Your task to perform on an android device: remove spam from my inbox in the gmail app Image 0: 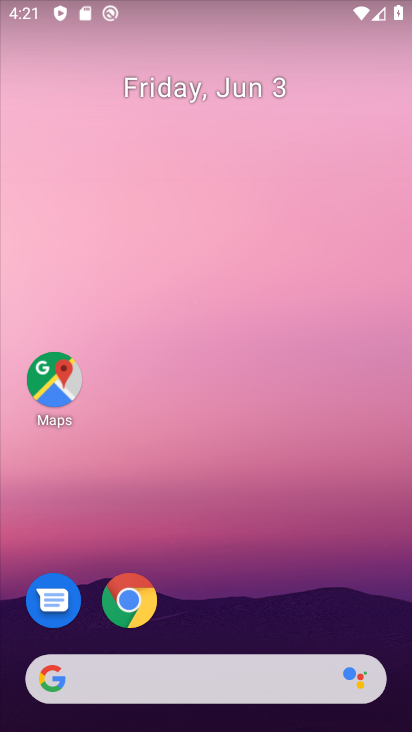
Step 0: drag from (193, 624) to (398, 95)
Your task to perform on an android device: remove spam from my inbox in the gmail app Image 1: 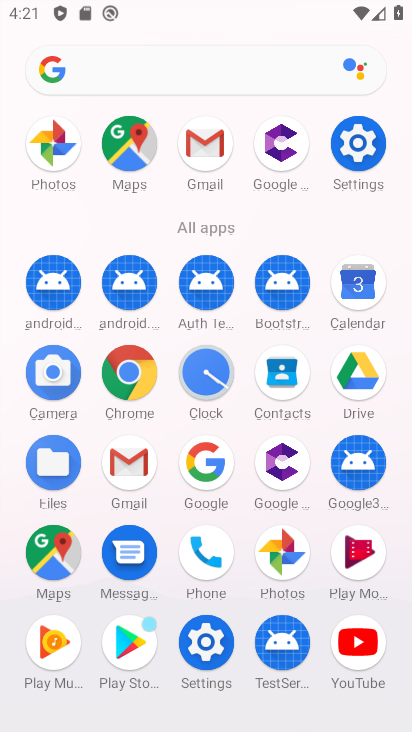
Step 1: click (137, 476)
Your task to perform on an android device: remove spam from my inbox in the gmail app Image 2: 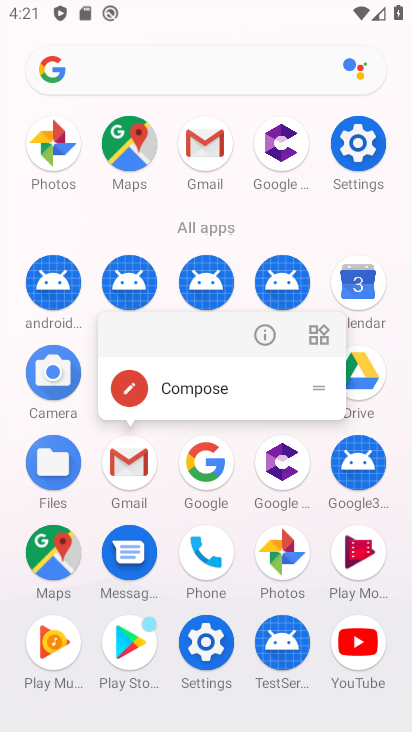
Step 2: click (137, 476)
Your task to perform on an android device: remove spam from my inbox in the gmail app Image 3: 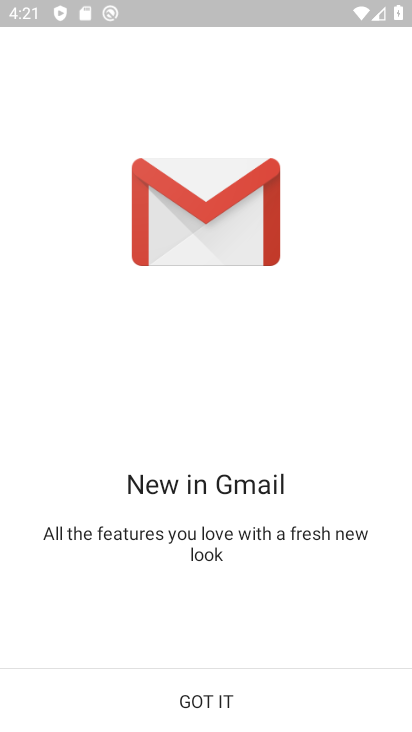
Step 3: click (193, 690)
Your task to perform on an android device: remove spam from my inbox in the gmail app Image 4: 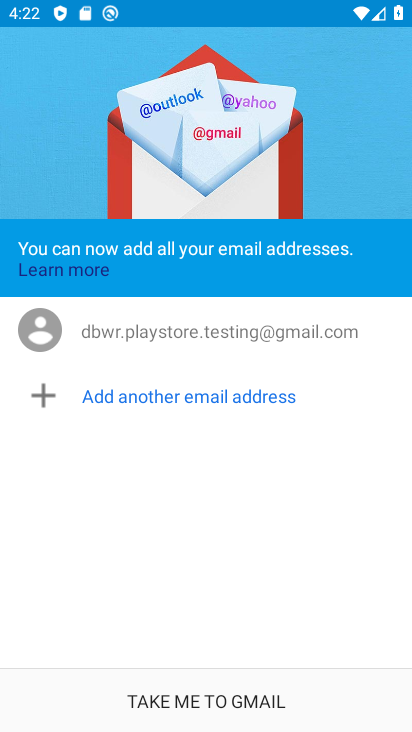
Step 4: click (193, 698)
Your task to perform on an android device: remove spam from my inbox in the gmail app Image 5: 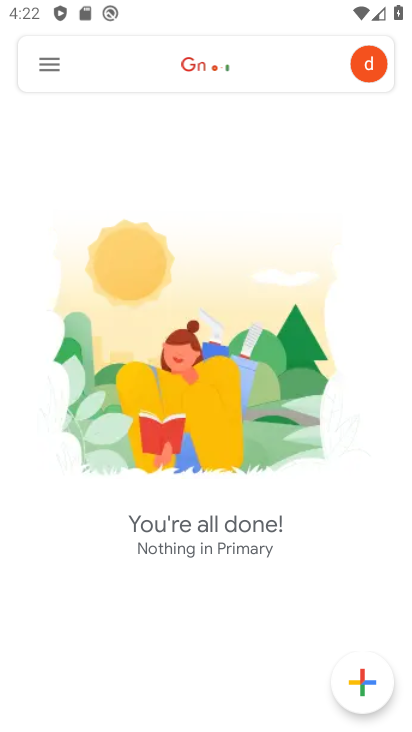
Step 5: click (55, 59)
Your task to perform on an android device: remove spam from my inbox in the gmail app Image 6: 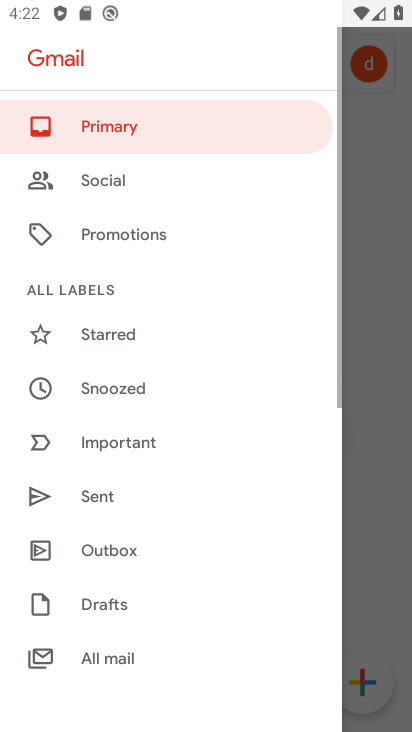
Step 6: drag from (134, 595) to (212, 130)
Your task to perform on an android device: remove spam from my inbox in the gmail app Image 7: 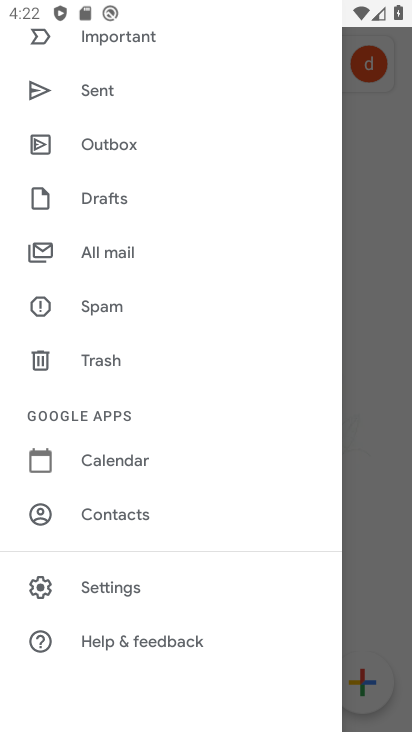
Step 7: click (99, 297)
Your task to perform on an android device: remove spam from my inbox in the gmail app Image 8: 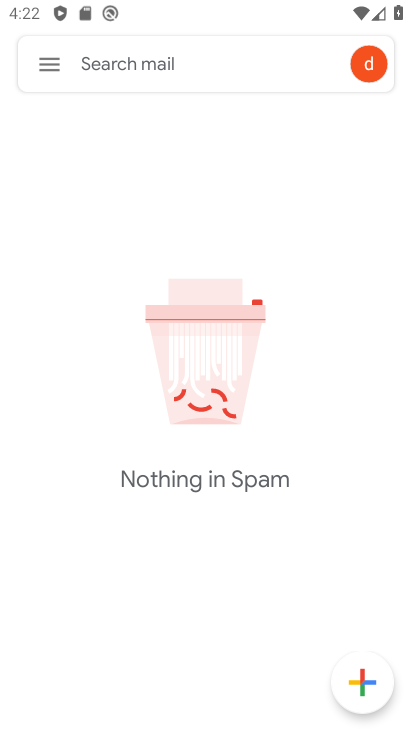
Step 8: task complete